Your task to perform on an android device: Go to internet settings Image 0: 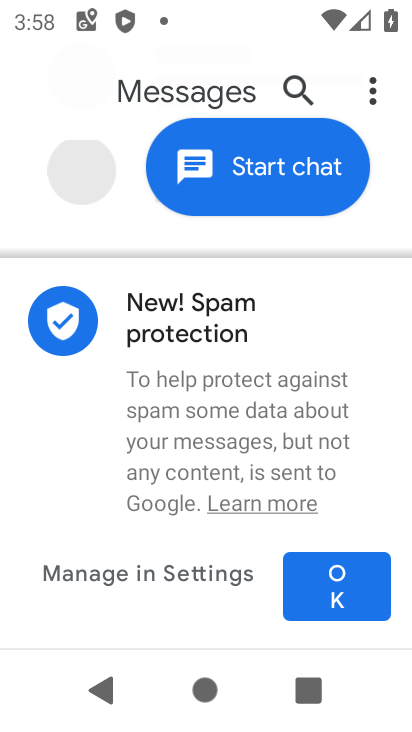
Step 0: task complete